Your task to perform on an android device: stop showing notifications on the lock screen Image 0: 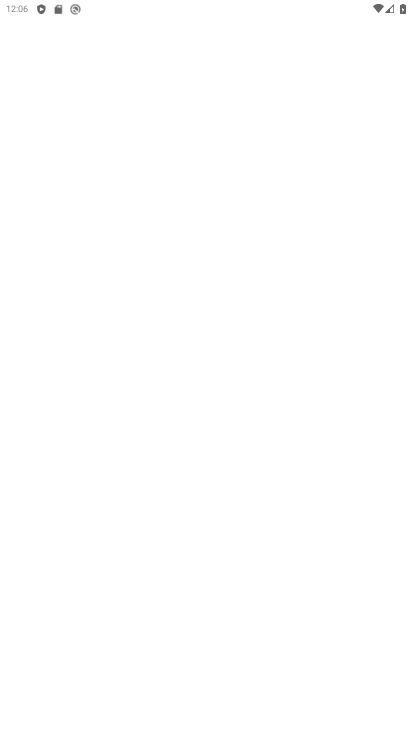
Step 0: click (207, 561)
Your task to perform on an android device: stop showing notifications on the lock screen Image 1: 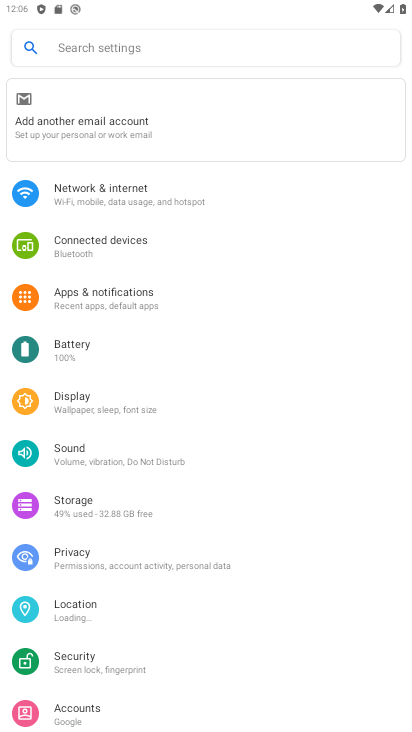
Step 1: click (119, 290)
Your task to perform on an android device: stop showing notifications on the lock screen Image 2: 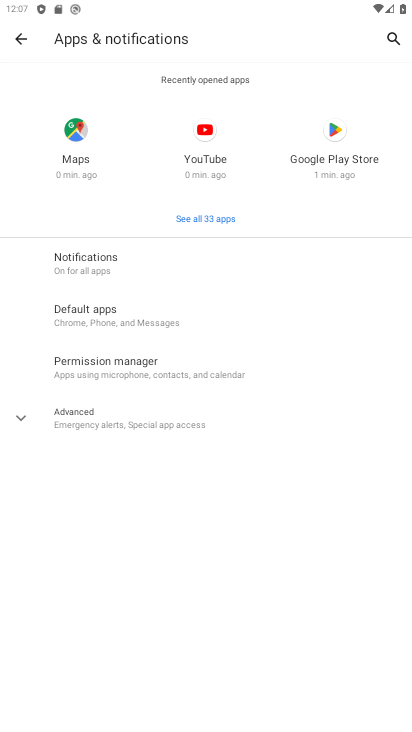
Step 2: click (79, 254)
Your task to perform on an android device: stop showing notifications on the lock screen Image 3: 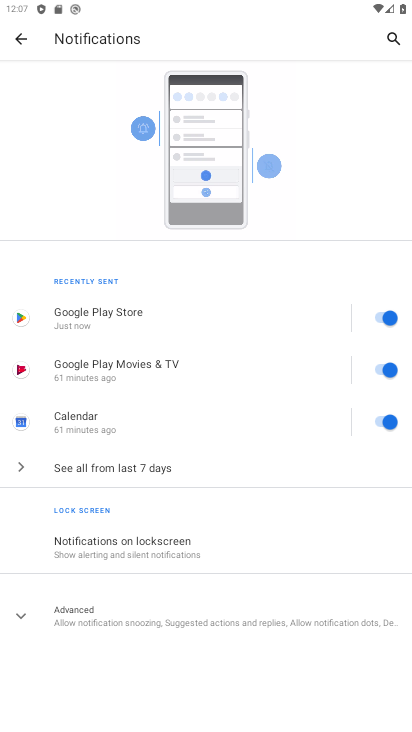
Step 3: click (112, 541)
Your task to perform on an android device: stop showing notifications on the lock screen Image 4: 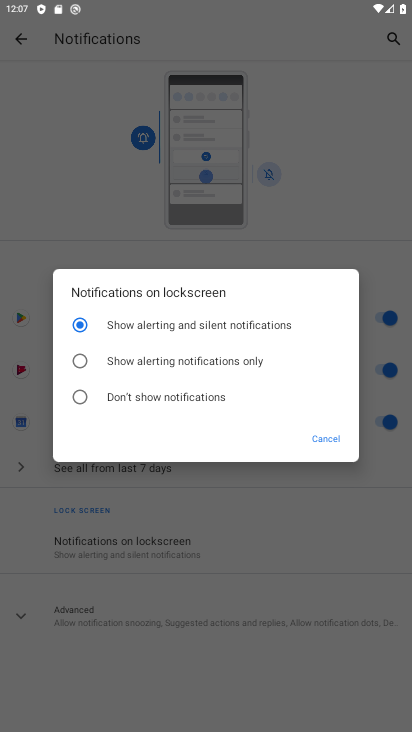
Step 4: click (77, 396)
Your task to perform on an android device: stop showing notifications on the lock screen Image 5: 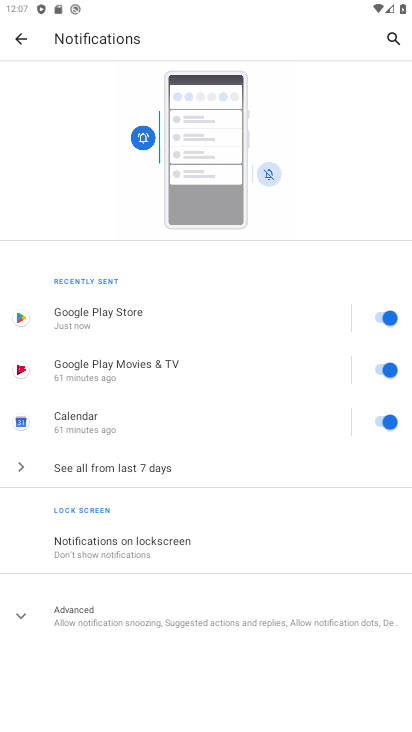
Step 5: task complete